Your task to perform on an android device: find photos in the google photos app Image 0: 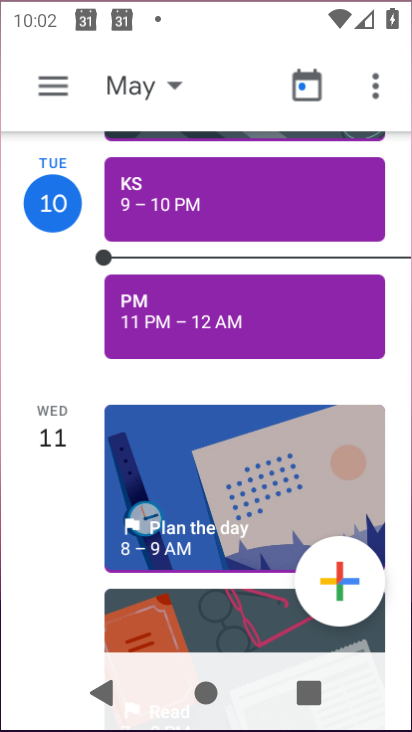
Step 0: drag from (360, 522) to (318, 171)
Your task to perform on an android device: find photos in the google photos app Image 1: 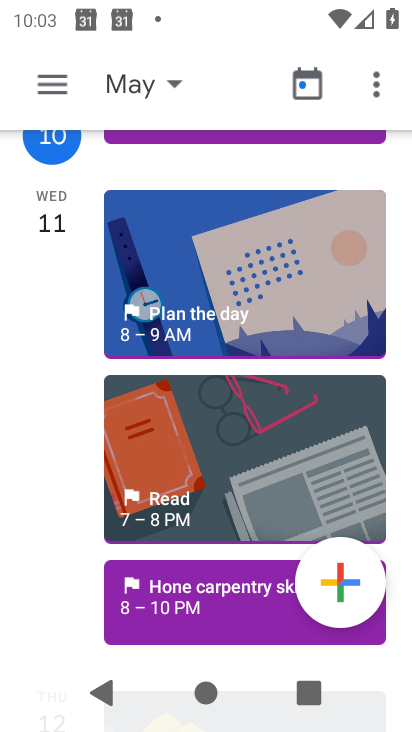
Step 1: press home button
Your task to perform on an android device: find photos in the google photos app Image 2: 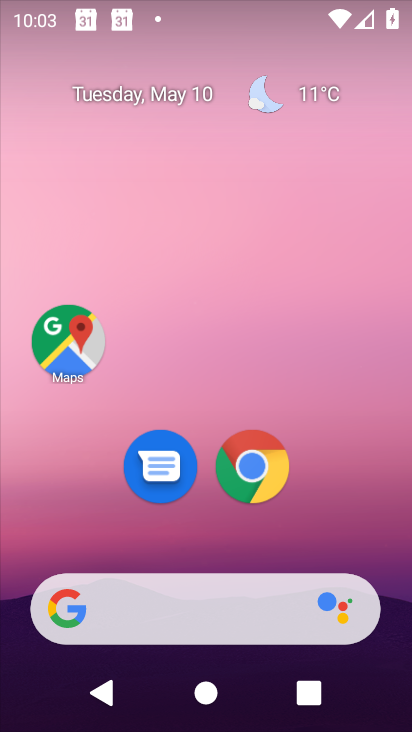
Step 2: drag from (352, 519) to (311, 119)
Your task to perform on an android device: find photos in the google photos app Image 3: 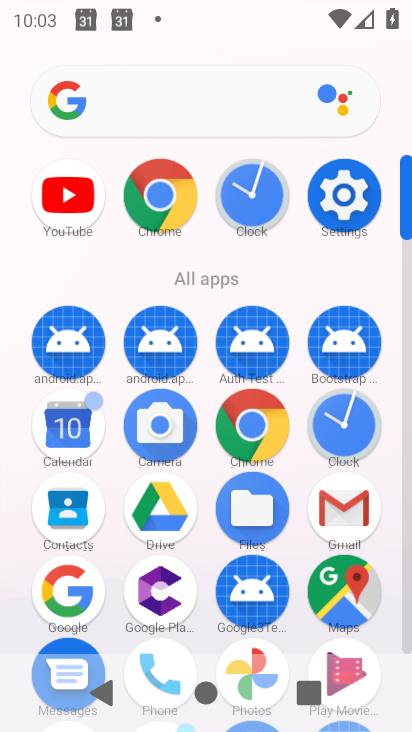
Step 3: drag from (293, 612) to (331, 299)
Your task to perform on an android device: find photos in the google photos app Image 4: 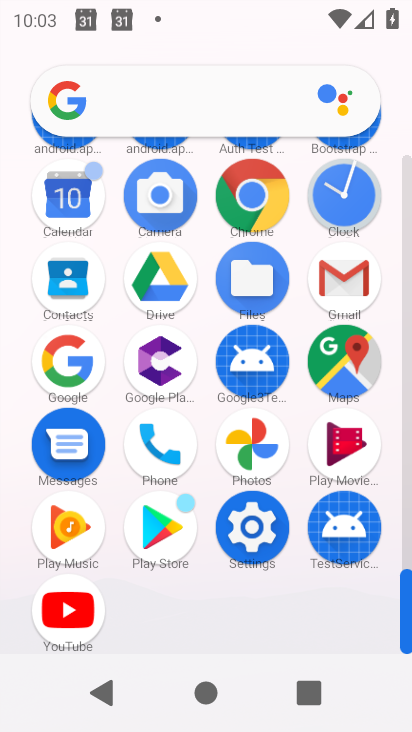
Step 4: click (268, 460)
Your task to perform on an android device: find photos in the google photos app Image 5: 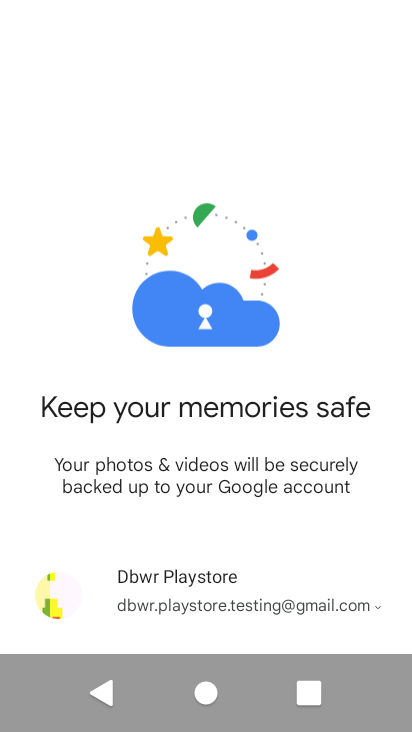
Step 5: click (241, 606)
Your task to perform on an android device: find photos in the google photos app Image 6: 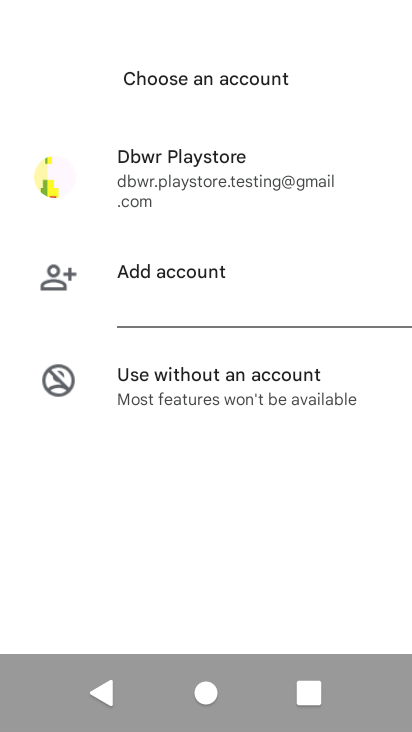
Step 6: click (217, 189)
Your task to perform on an android device: find photos in the google photos app Image 7: 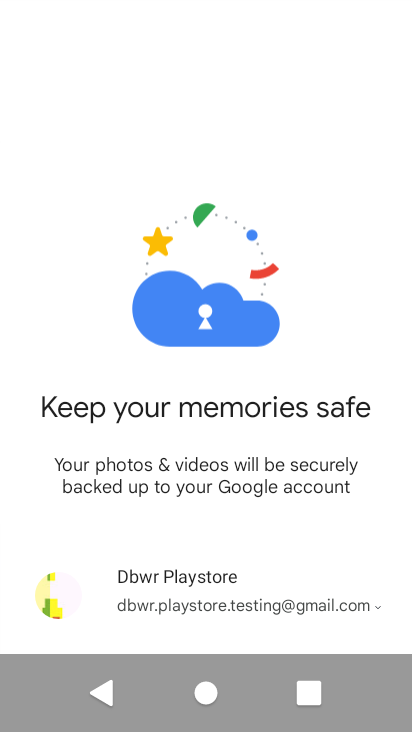
Step 7: click (235, 595)
Your task to perform on an android device: find photos in the google photos app Image 8: 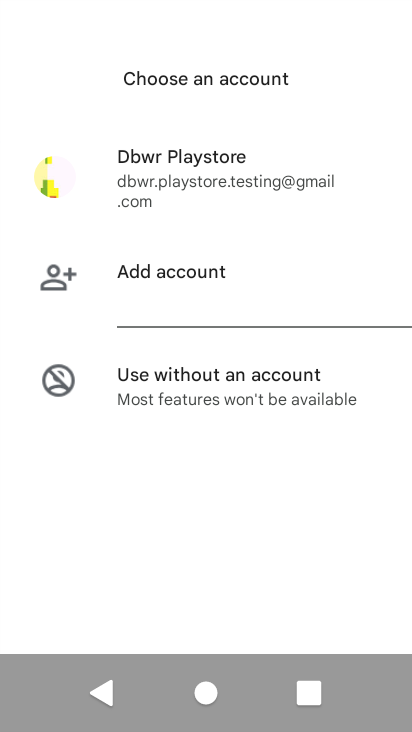
Step 8: press enter
Your task to perform on an android device: find photos in the google photos app Image 9: 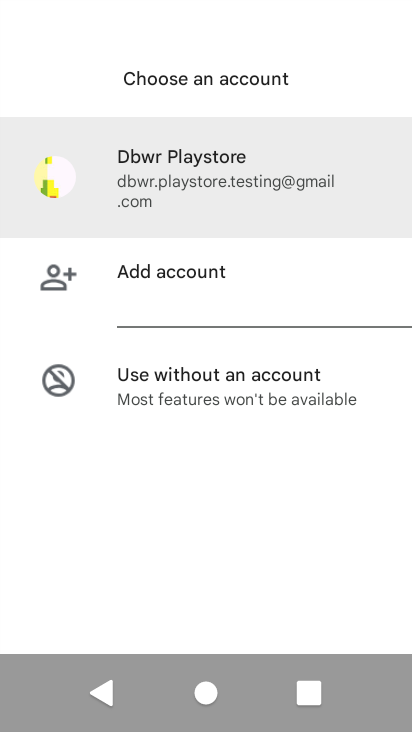
Step 9: click (217, 160)
Your task to perform on an android device: find photos in the google photos app Image 10: 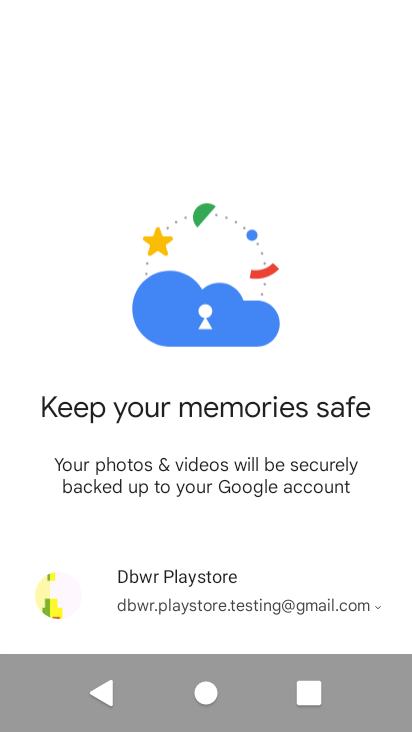
Step 10: press enter
Your task to perform on an android device: find photos in the google photos app Image 11: 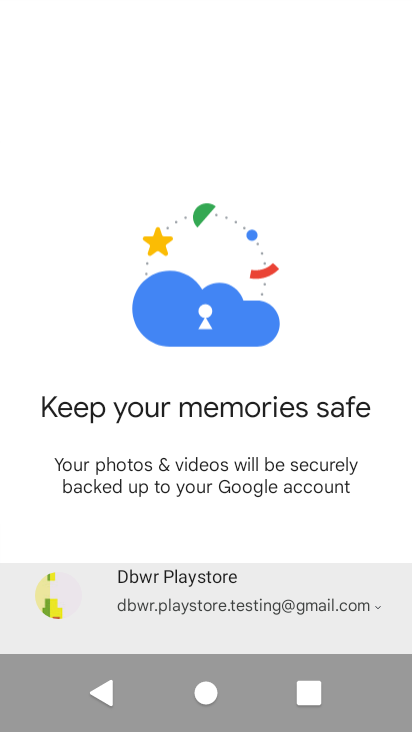
Step 11: press enter
Your task to perform on an android device: find photos in the google photos app Image 12: 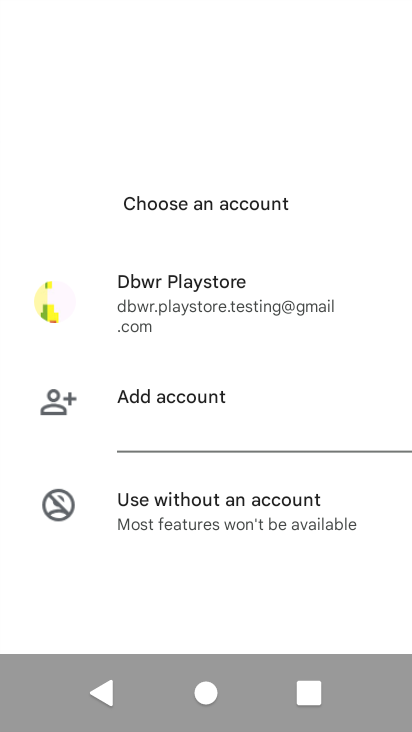
Step 12: press enter
Your task to perform on an android device: find photos in the google photos app Image 13: 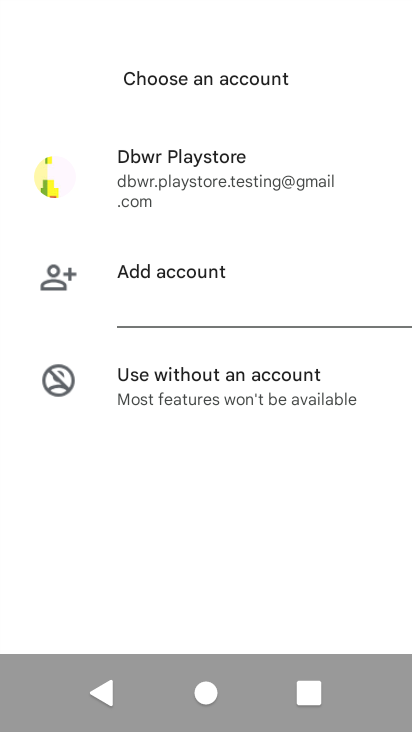
Step 13: press enter
Your task to perform on an android device: find photos in the google photos app Image 14: 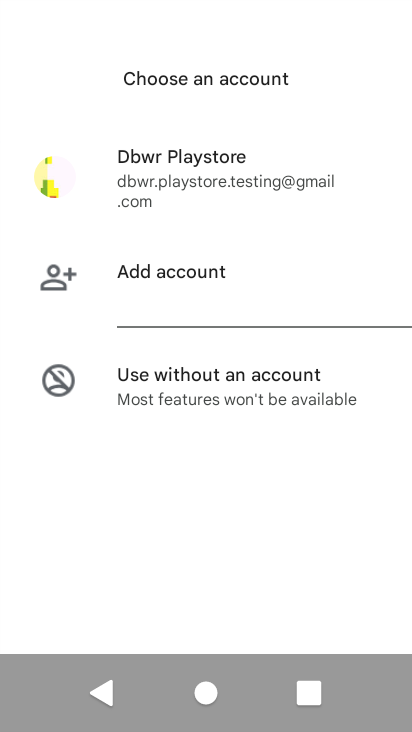
Step 14: press enter
Your task to perform on an android device: find photos in the google photos app Image 15: 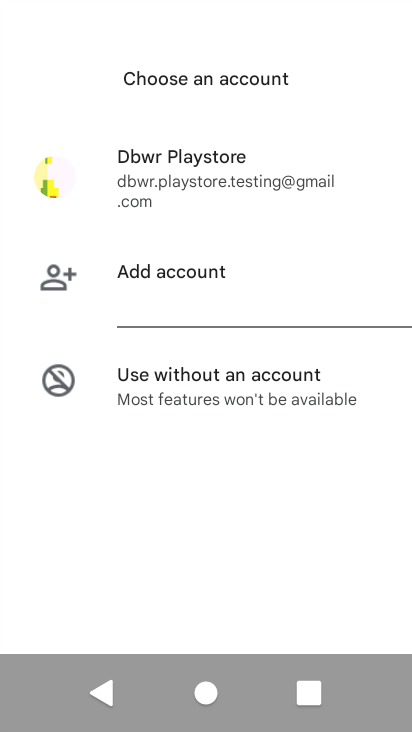
Step 15: press enter
Your task to perform on an android device: find photos in the google photos app Image 16: 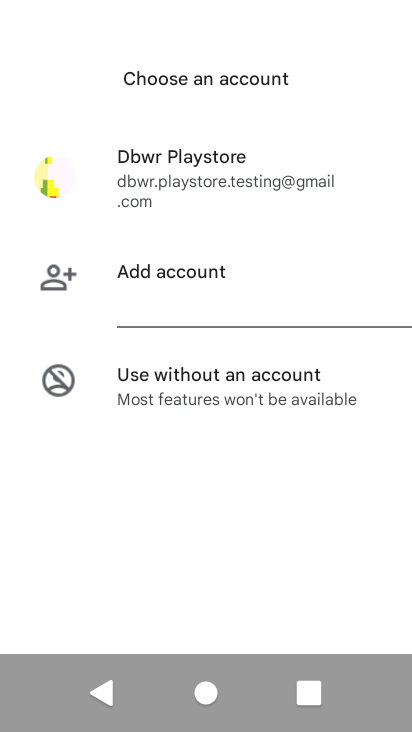
Step 16: click (112, 170)
Your task to perform on an android device: find photos in the google photos app Image 17: 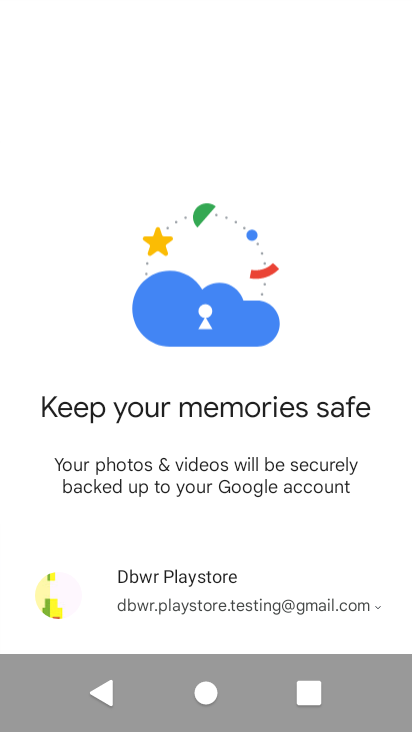
Step 17: click (222, 599)
Your task to perform on an android device: find photos in the google photos app Image 18: 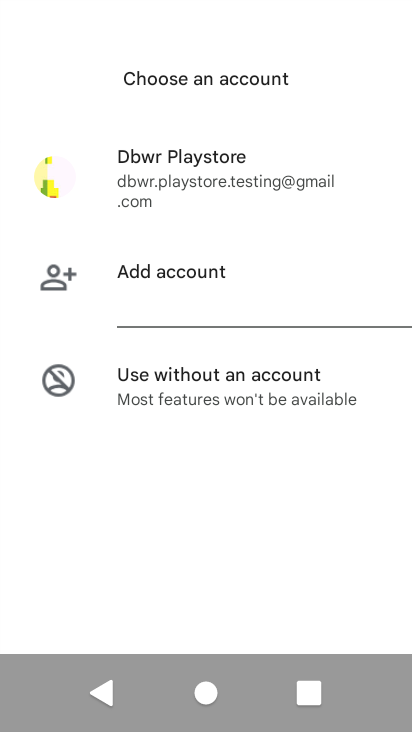
Step 18: press enter
Your task to perform on an android device: find photos in the google photos app Image 19: 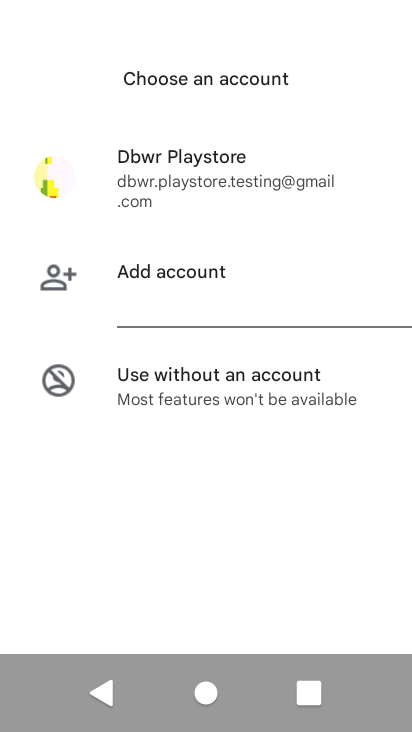
Step 19: press enter
Your task to perform on an android device: find photos in the google photos app Image 20: 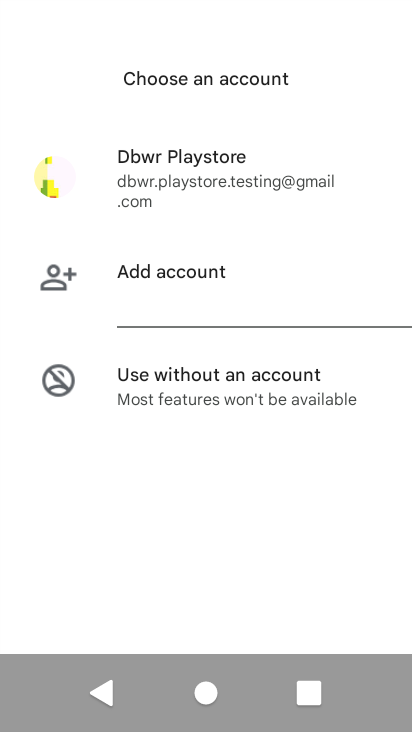
Step 20: click (184, 178)
Your task to perform on an android device: find photos in the google photos app Image 21: 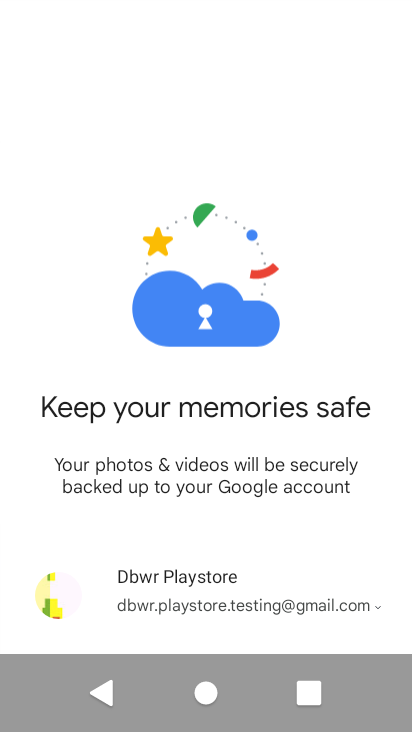
Step 21: click (220, 590)
Your task to perform on an android device: find photos in the google photos app Image 22: 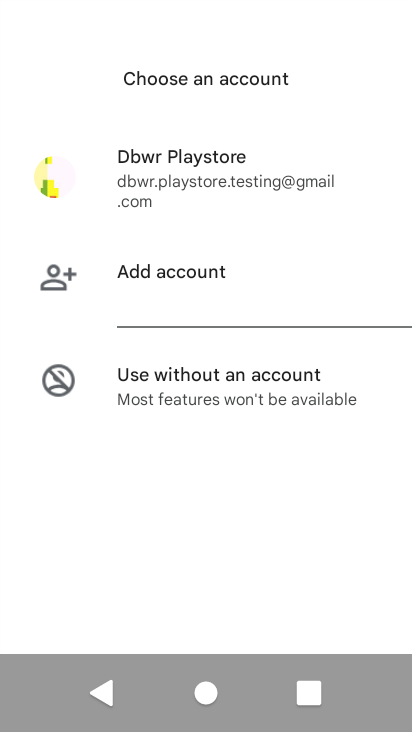
Step 22: click (224, 388)
Your task to perform on an android device: find photos in the google photos app Image 23: 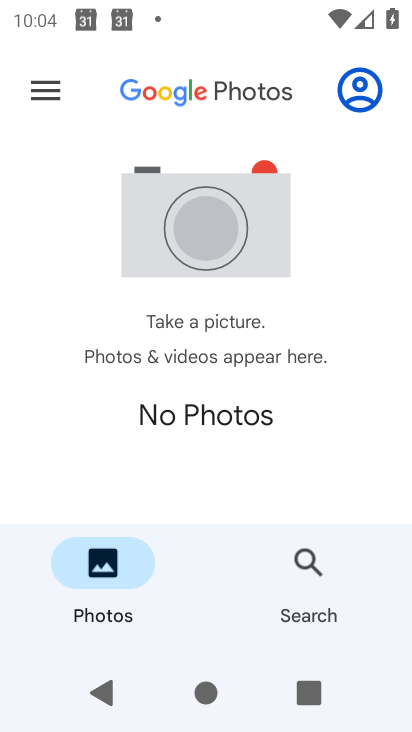
Step 23: task complete